Your task to perform on an android device: Go to Yahoo.com Image 0: 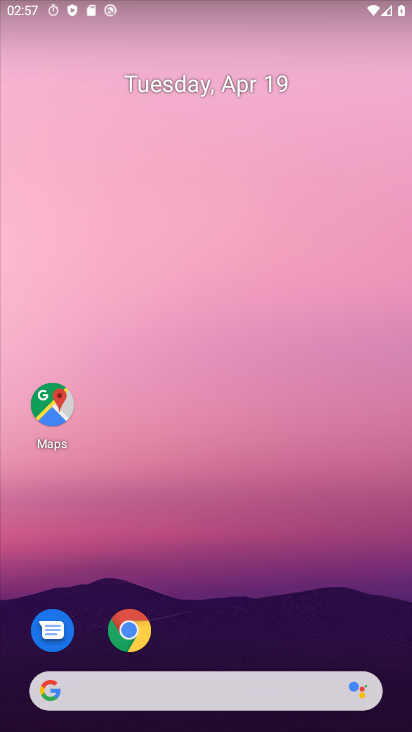
Step 0: drag from (237, 345) to (200, 56)
Your task to perform on an android device: Go to Yahoo.com Image 1: 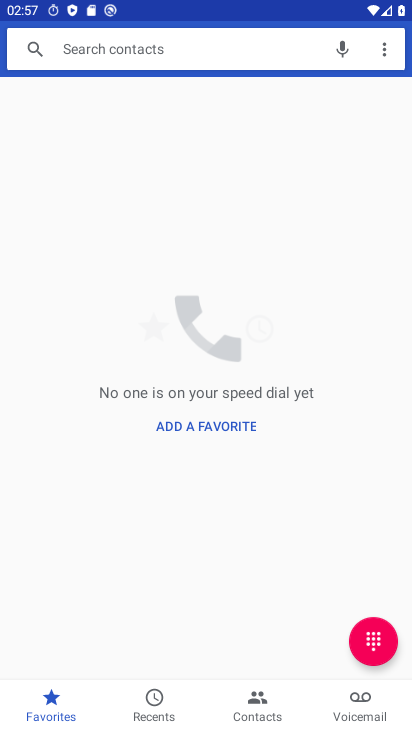
Step 1: press home button
Your task to perform on an android device: Go to Yahoo.com Image 2: 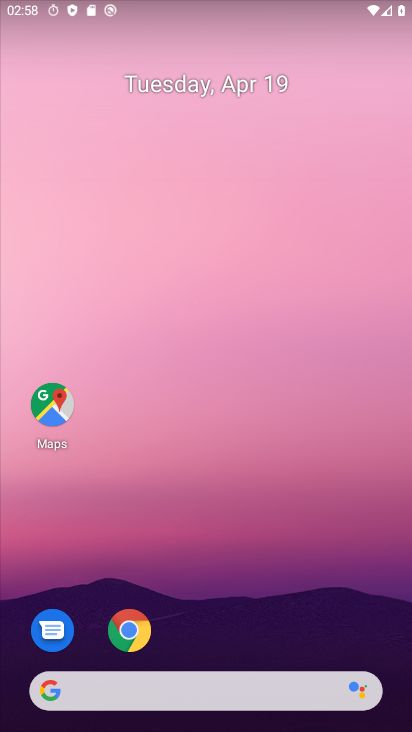
Step 2: drag from (296, 594) to (270, 107)
Your task to perform on an android device: Go to Yahoo.com Image 3: 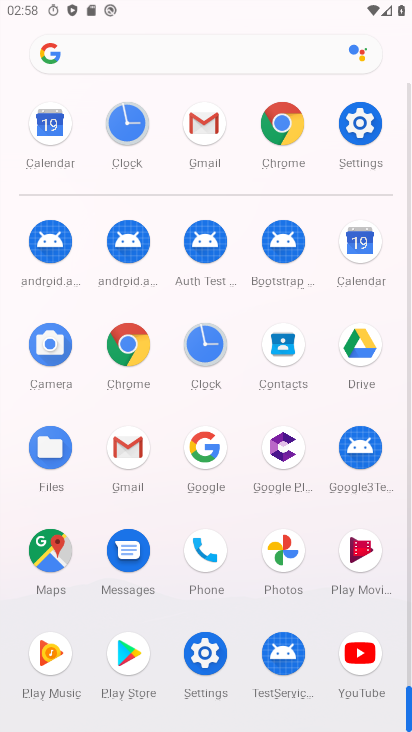
Step 3: click (282, 125)
Your task to perform on an android device: Go to Yahoo.com Image 4: 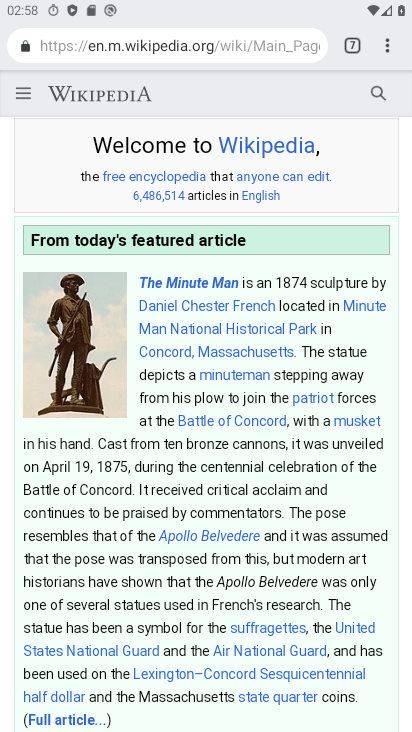
Step 4: click (351, 50)
Your task to perform on an android device: Go to Yahoo.com Image 5: 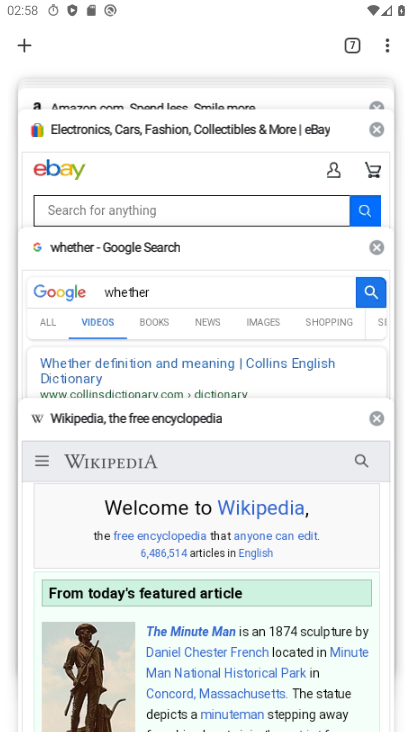
Step 5: click (22, 42)
Your task to perform on an android device: Go to Yahoo.com Image 6: 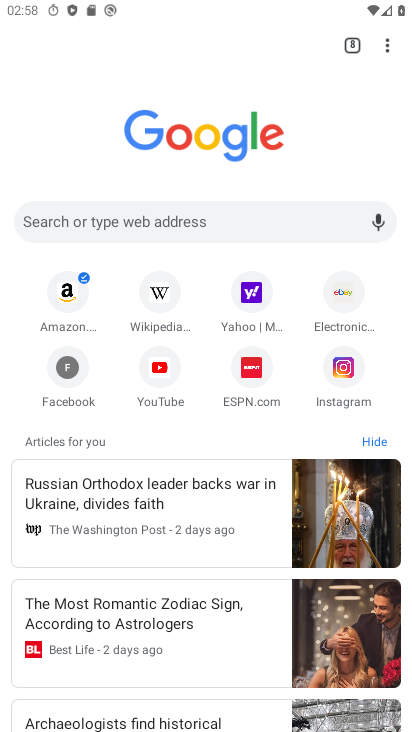
Step 6: click (250, 301)
Your task to perform on an android device: Go to Yahoo.com Image 7: 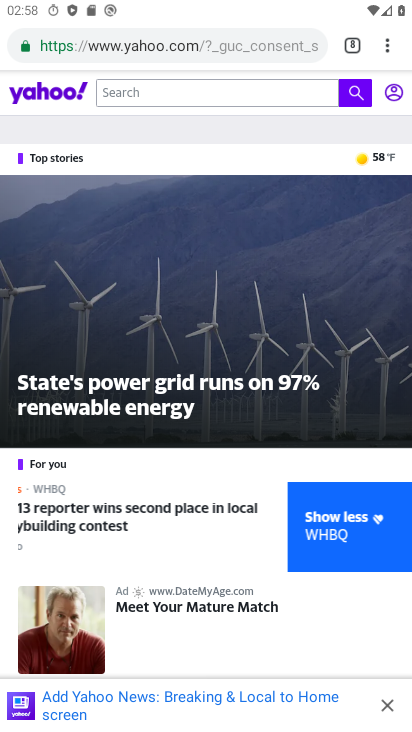
Step 7: task complete